Your task to perform on an android device: Go to Yahoo.com Image 0: 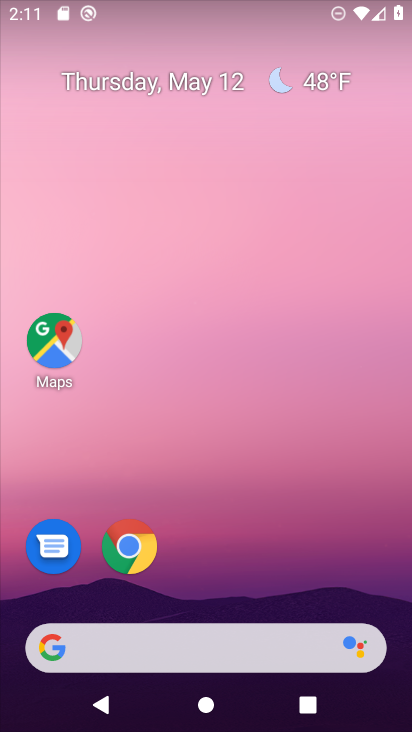
Step 0: drag from (319, 671) to (210, 211)
Your task to perform on an android device: Go to Yahoo.com Image 1: 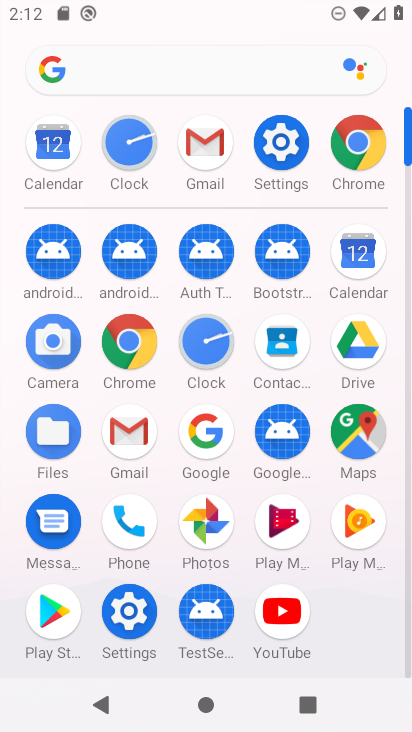
Step 1: click (138, 363)
Your task to perform on an android device: Go to Yahoo.com Image 2: 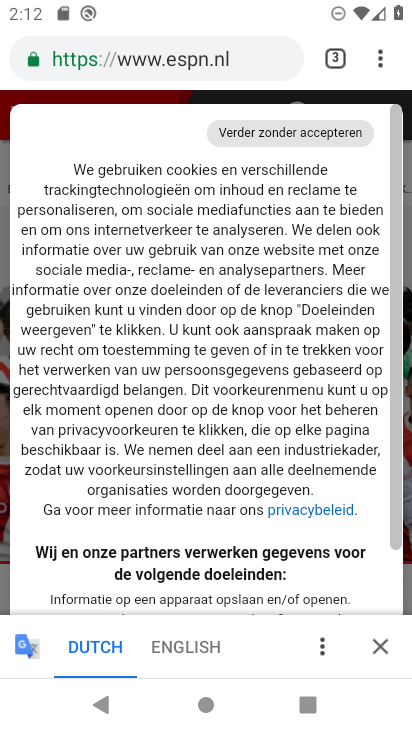
Step 2: drag from (163, 450) to (192, 300)
Your task to perform on an android device: Go to Yahoo.com Image 3: 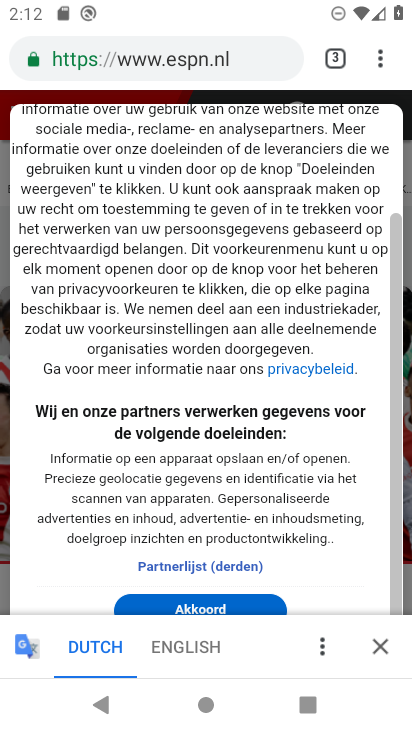
Step 3: click (199, 611)
Your task to perform on an android device: Go to Yahoo.com Image 4: 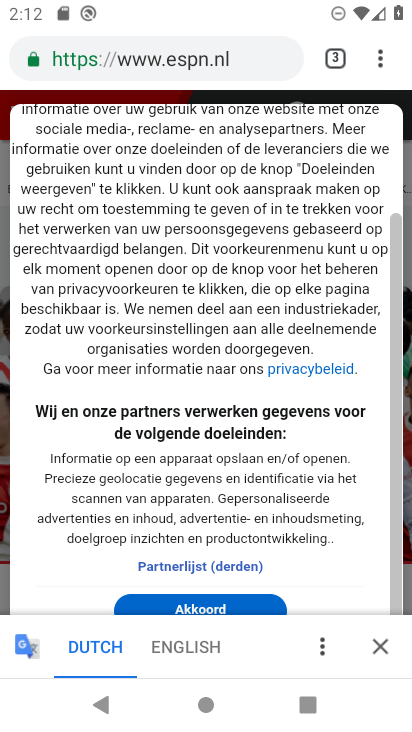
Step 4: click (176, 63)
Your task to perform on an android device: Go to Yahoo.com Image 5: 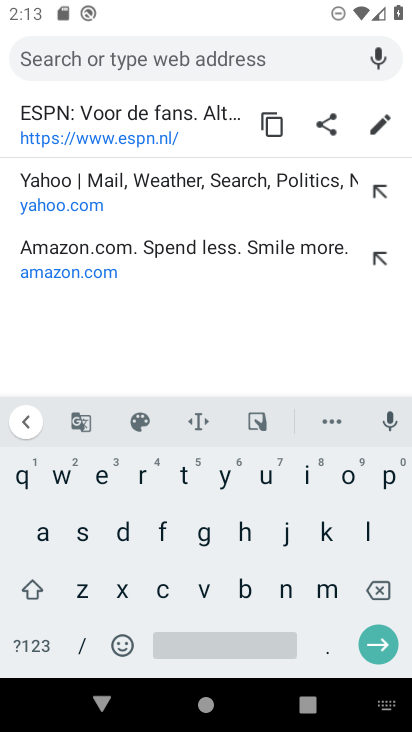
Step 5: click (217, 475)
Your task to perform on an android device: Go to Yahoo.com Image 6: 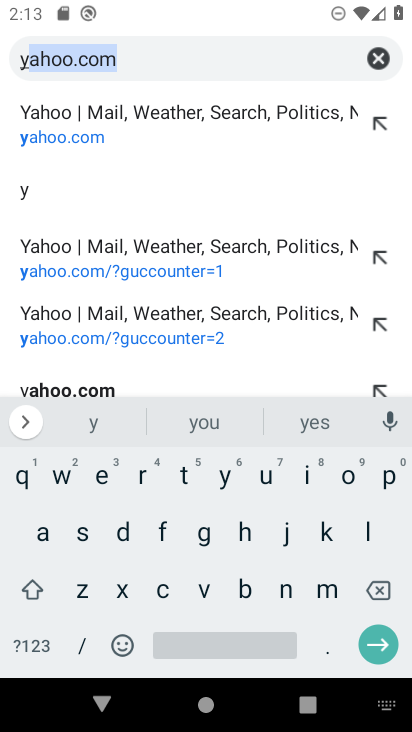
Step 6: click (145, 56)
Your task to perform on an android device: Go to Yahoo.com Image 7: 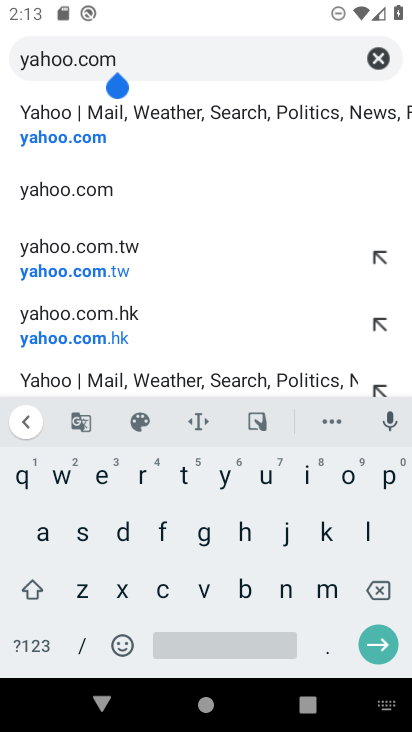
Step 7: click (382, 642)
Your task to perform on an android device: Go to Yahoo.com Image 8: 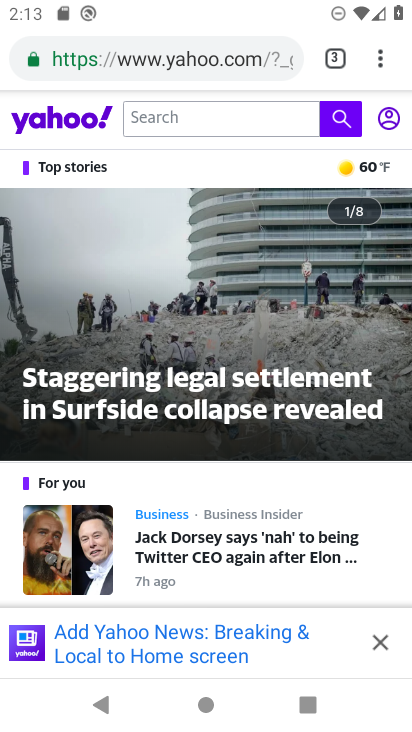
Step 8: task complete